Your task to perform on an android device: uninstall "LiveIn - Share Your Moment" Image 0: 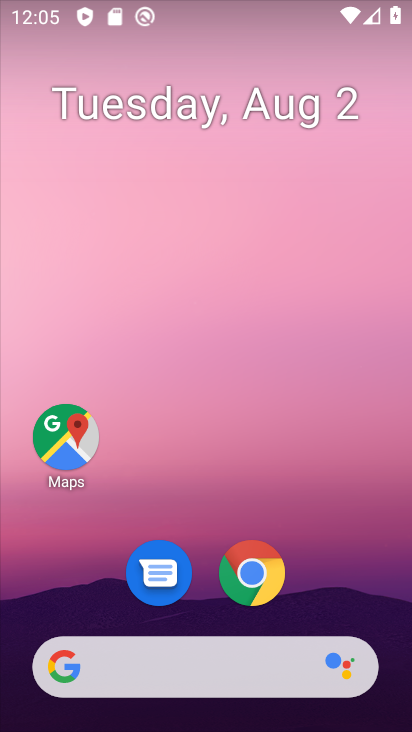
Step 0: drag from (226, 650) to (235, 30)
Your task to perform on an android device: uninstall "LiveIn - Share Your Moment" Image 1: 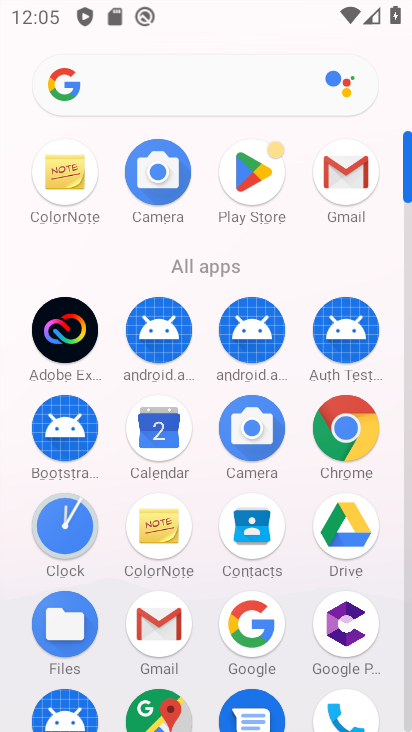
Step 1: drag from (292, 514) to (289, 212)
Your task to perform on an android device: uninstall "LiveIn - Share Your Moment" Image 2: 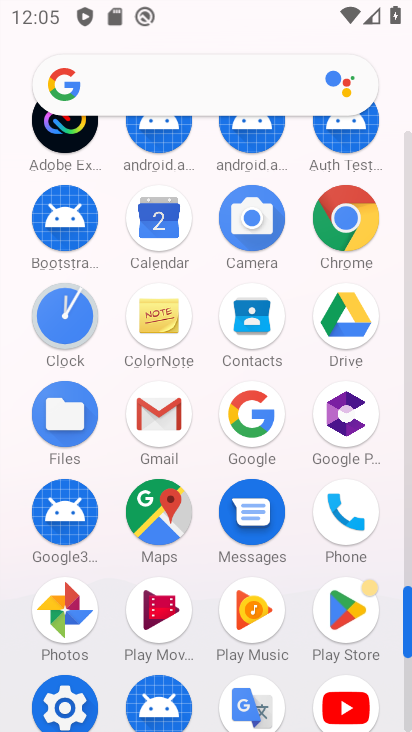
Step 2: drag from (289, 212) to (298, 430)
Your task to perform on an android device: uninstall "LiveIn - Share Your Moment" Image 3: 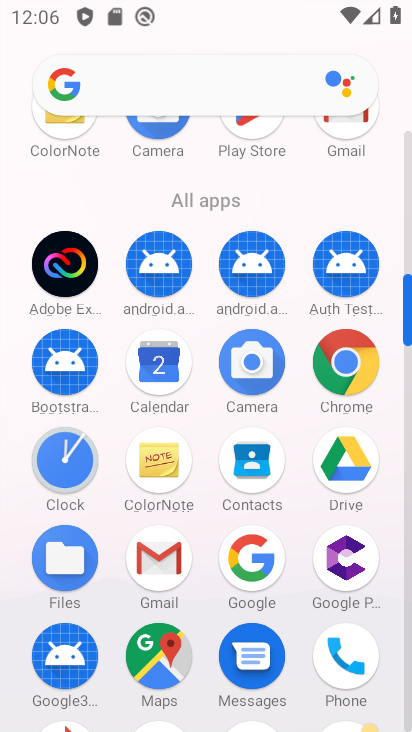
Step 3: click (255, 120)
Your task to perform on an android device: uninstall "LiveIn - Share Your Moment" Image 4: 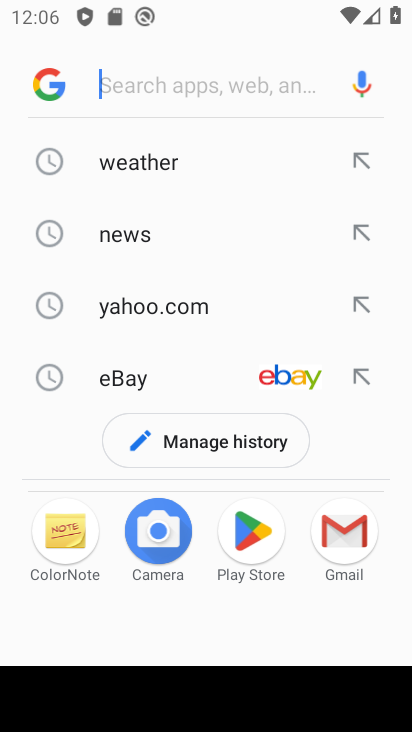
Step 4: click (254, 548)
Your task to perform on an android device: uninstall "LiveIn - Share Your Moment" Image 5: 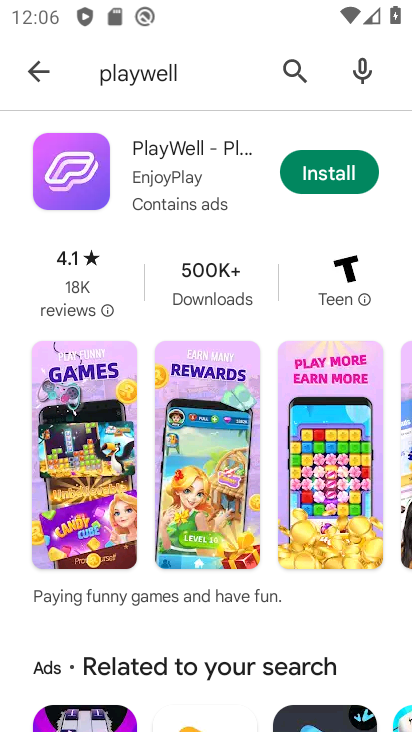
Step 5: click (288, 68)
Your task to perform on an android device: uninstall "LiveIn - Share Your Moment" Image 6: 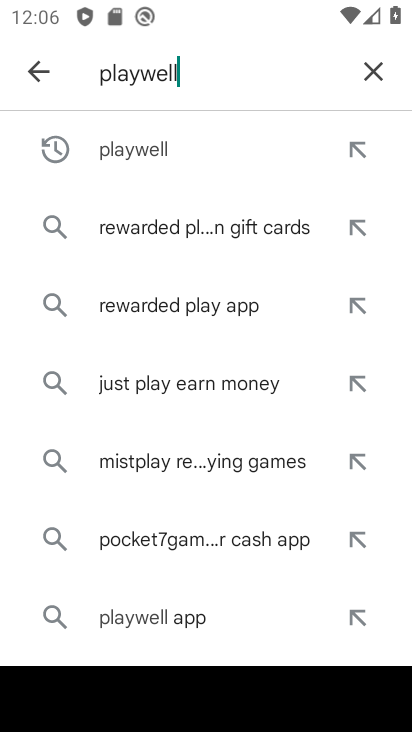
Step 6: click (376, 68)
Your task to perform on an android device: uninstall "LiveIn - Share Your Moment" Image 7: 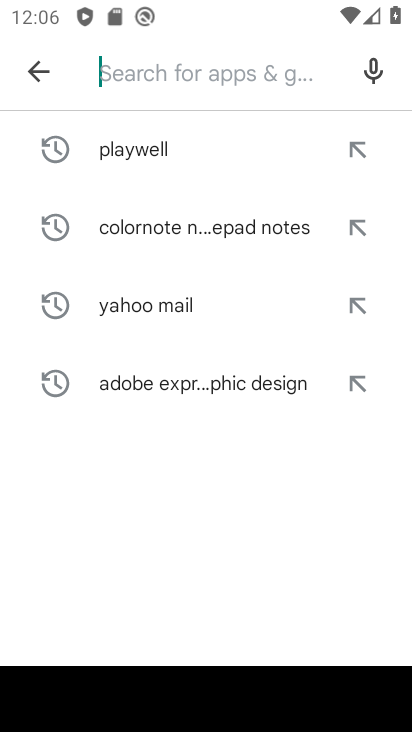
Step 7: type "livein - share your moment"
Your task to perform on an android device: uninstall "LiveIn - Share Your Moment" Image 8: 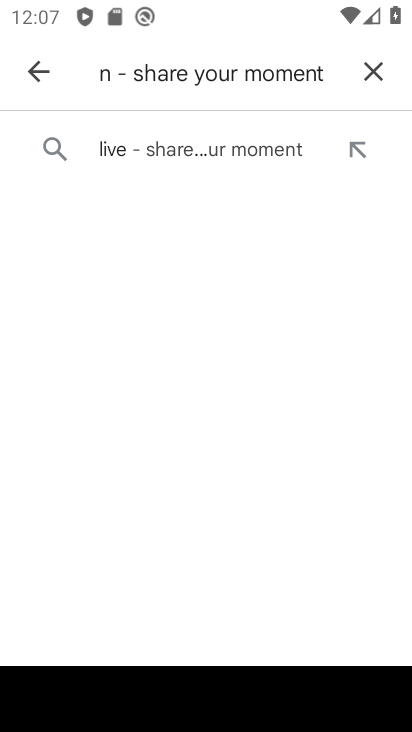
Step 8: click (240, 155)
Your task to perform on an android device: uninstall "LiveIn - Share Your Moment" Image 9: 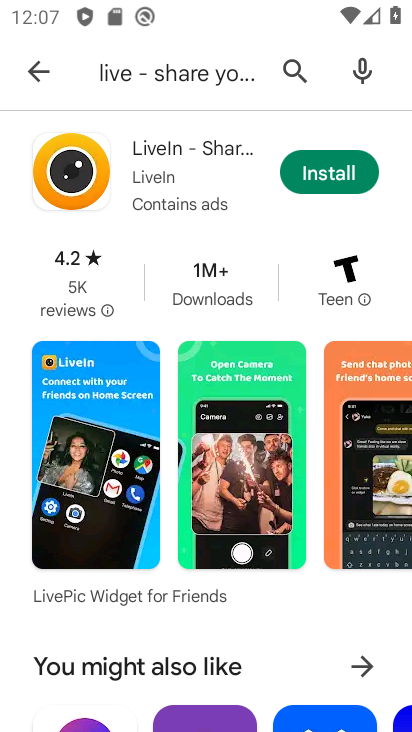
Step 9: task complete